Your task to perform on an android device: Show the shopping cart on costco. Image 0: 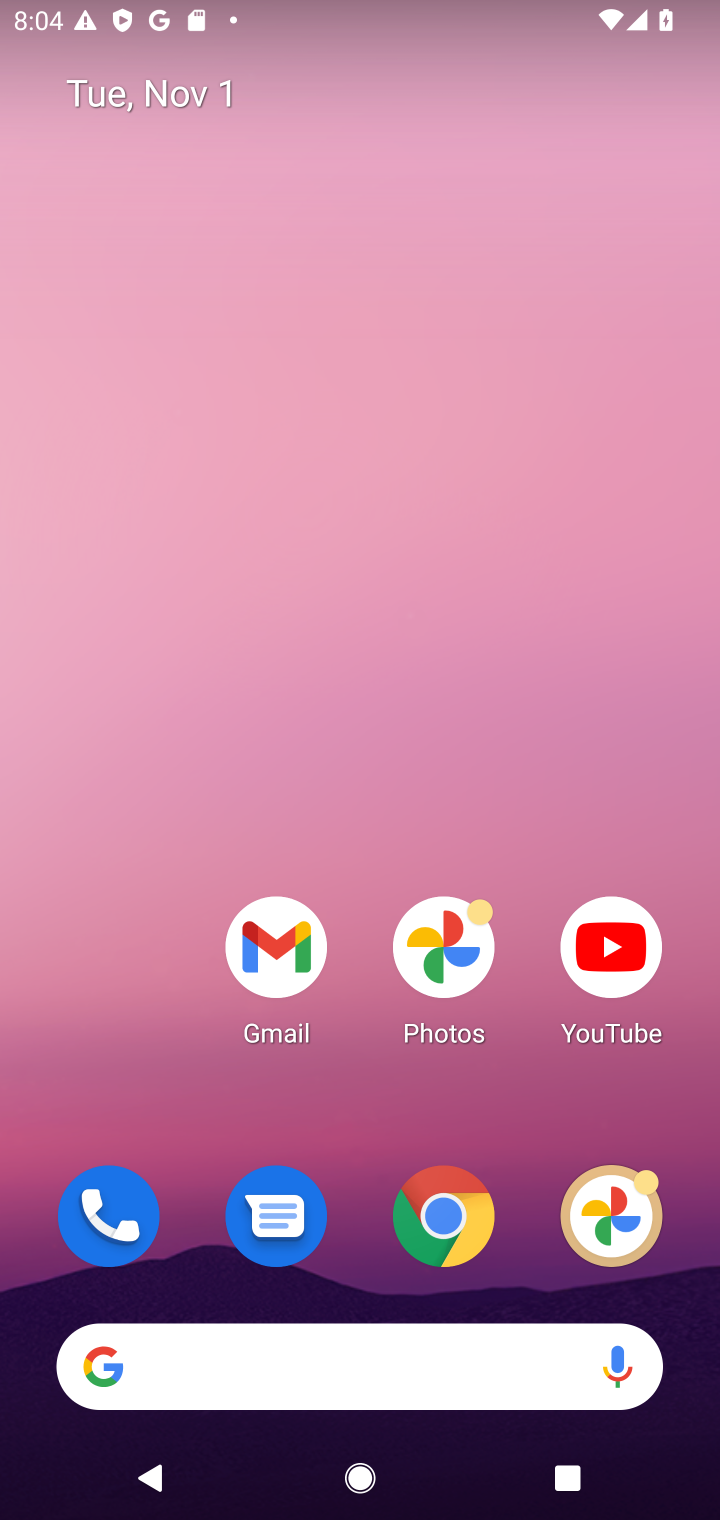
Step 0: click (451, 1222)
Your task to perform on an android device: Show the shopping cart on costco. Image 1: 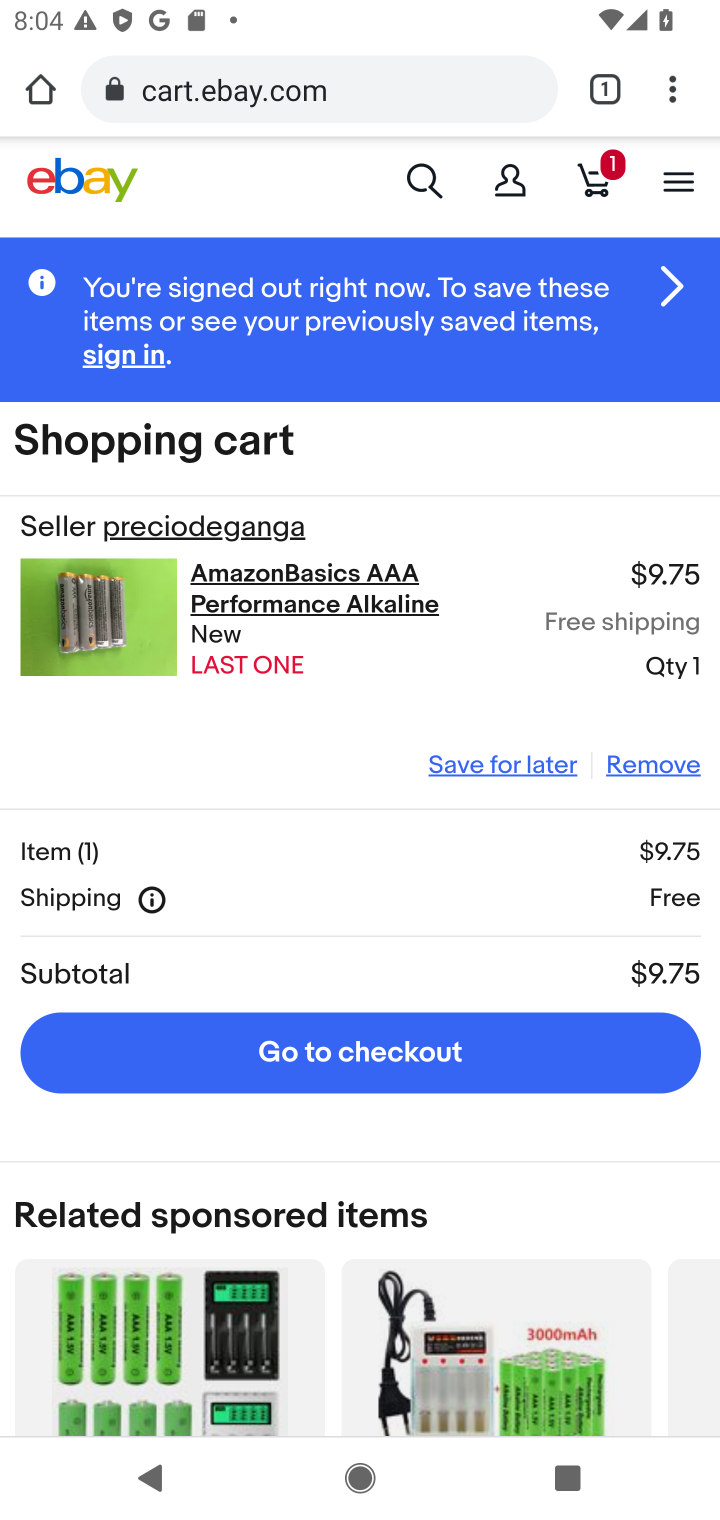
Step 1: click (329, 98)
Your task to perform on an android device: Show the shopping cart on costco. Image 2: 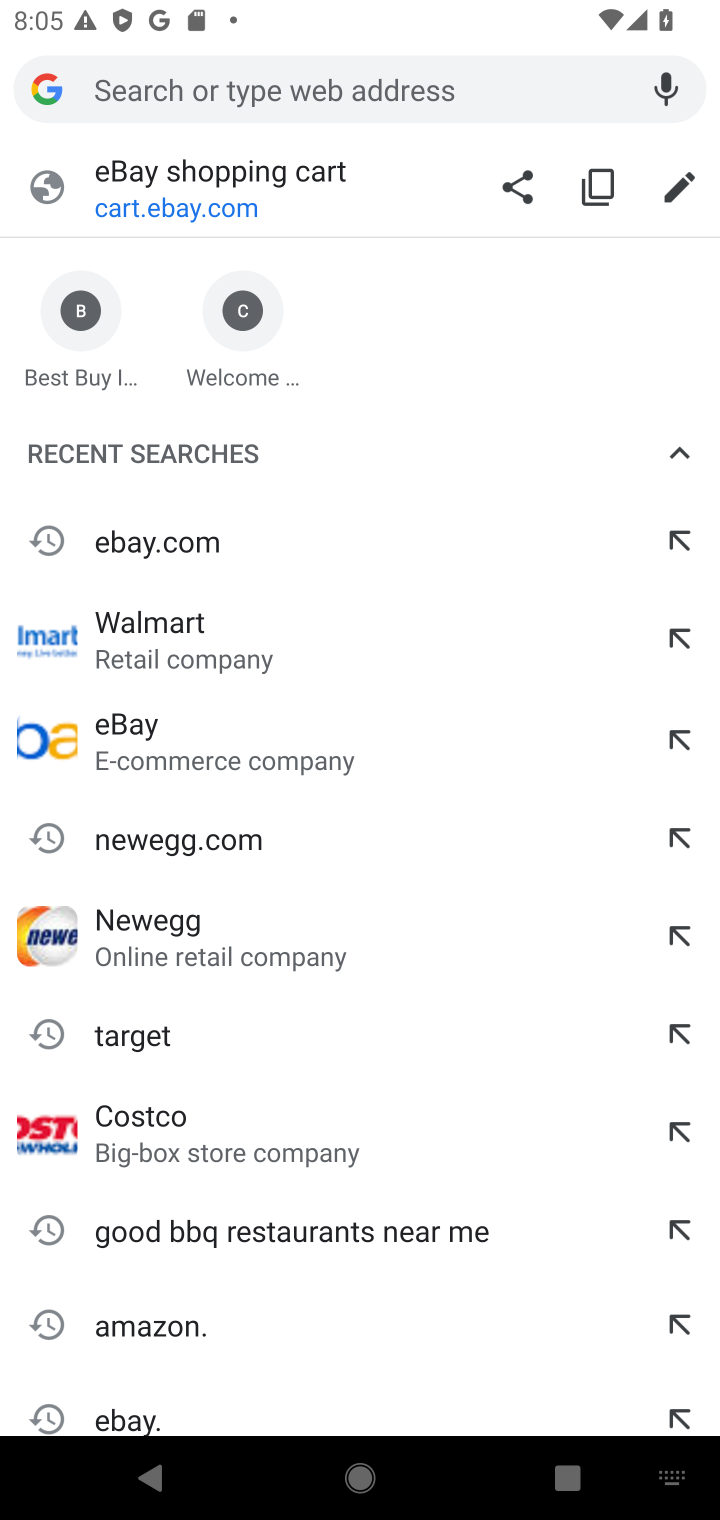
Step 2: type "costco"
Your task to perform on an android device: Show the shopping cart on costco. Image 3: 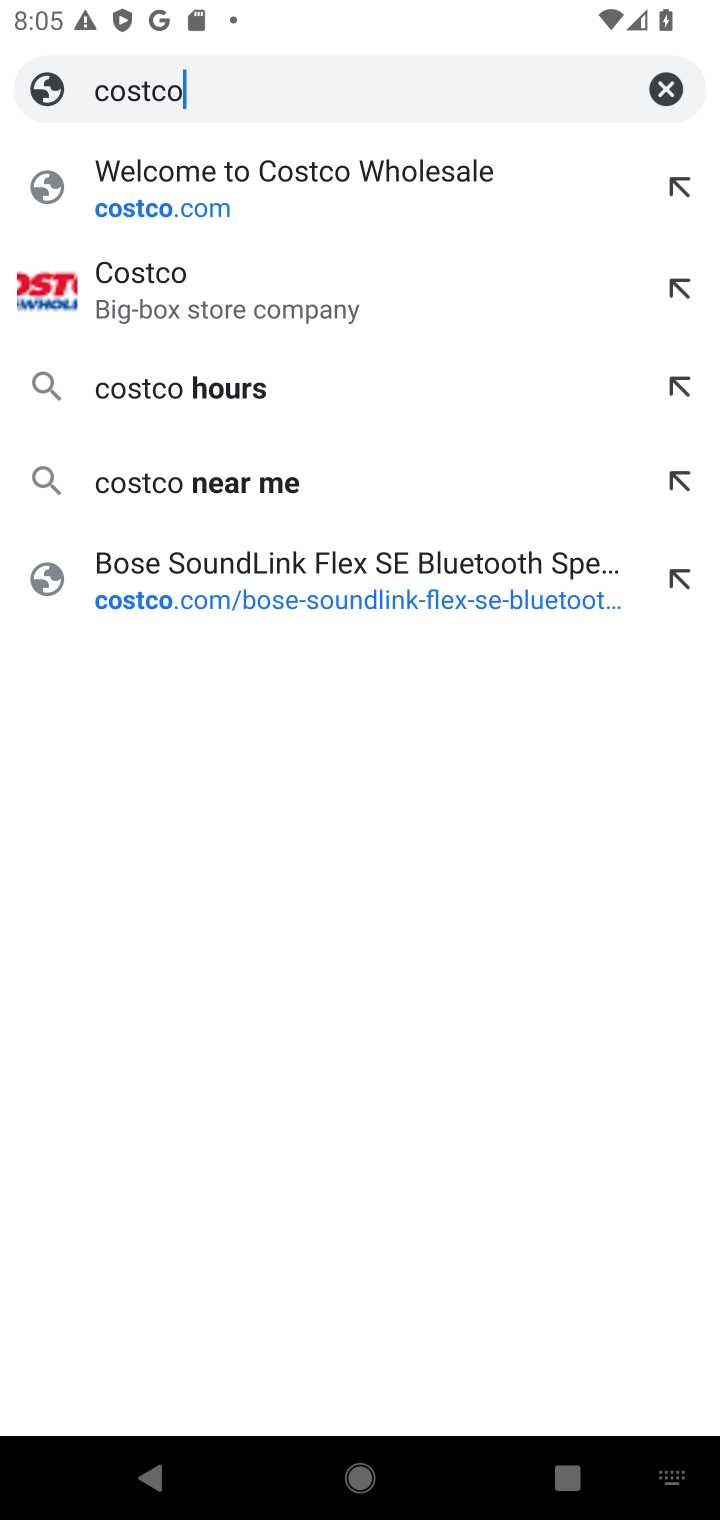
Step 3: click (350, 201)
Your task to perform on an android device: Show the shopping cart on costco. Image 4: 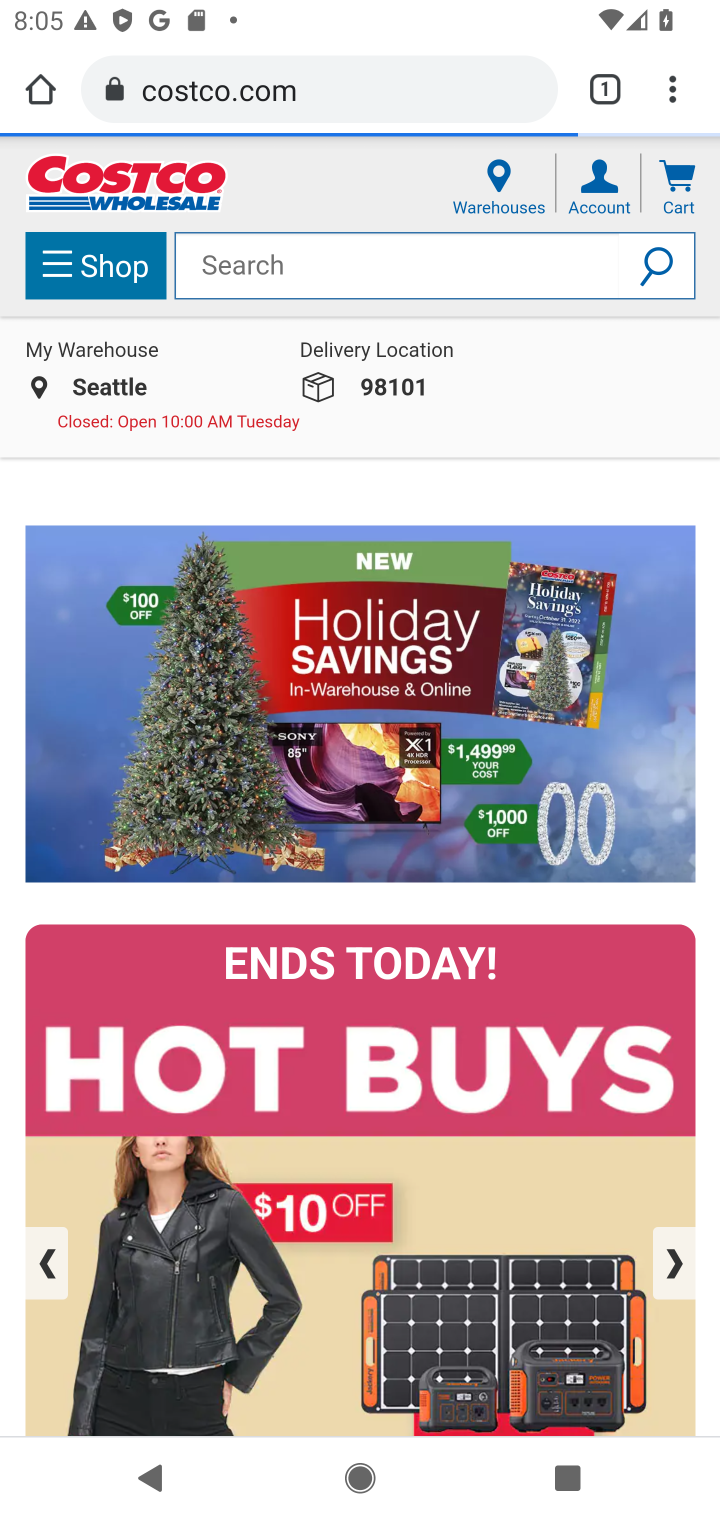
Step 4: click (684, 182)
Your task to perform on an android device: Show the shopping cart on costco. Image 5: 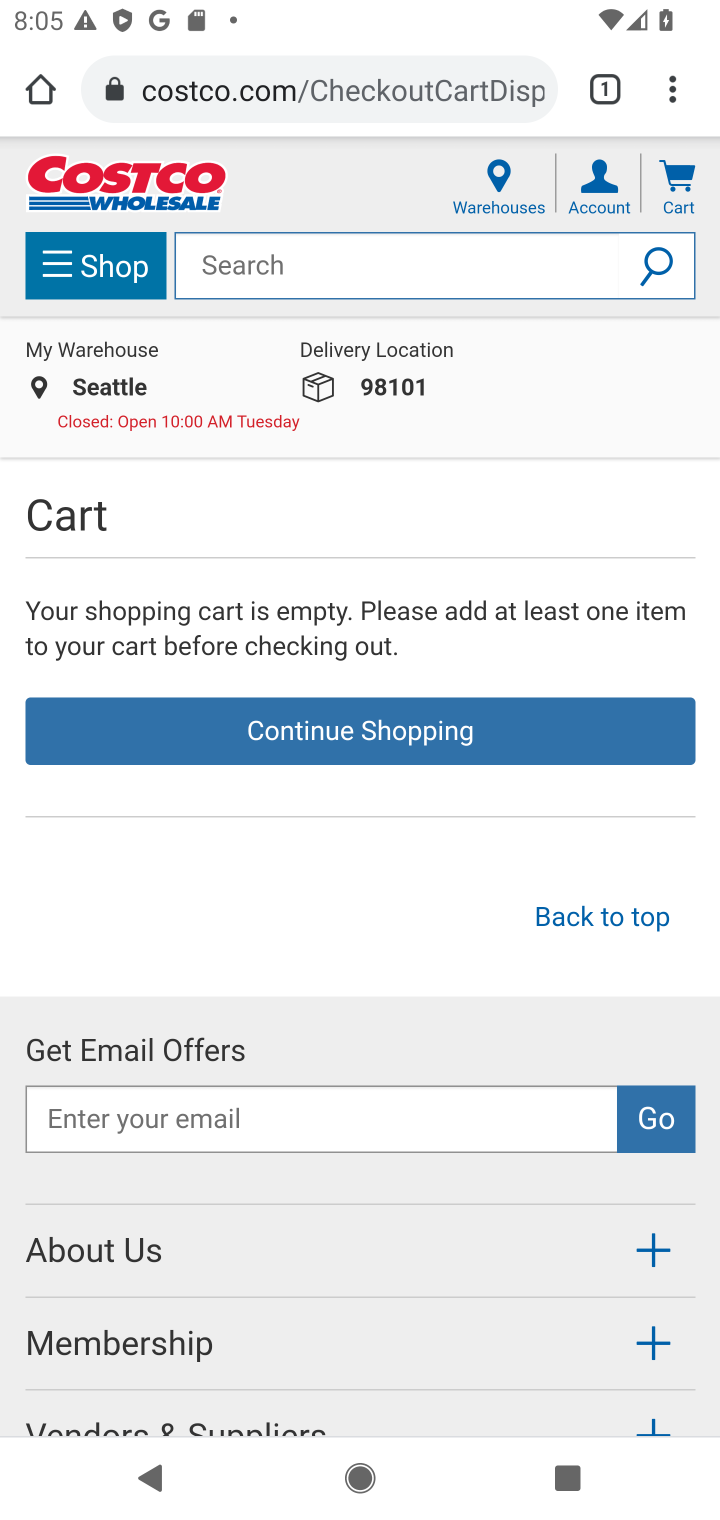
Step 5: task complete